Your task to perform on an android device: set the timer Image 0: 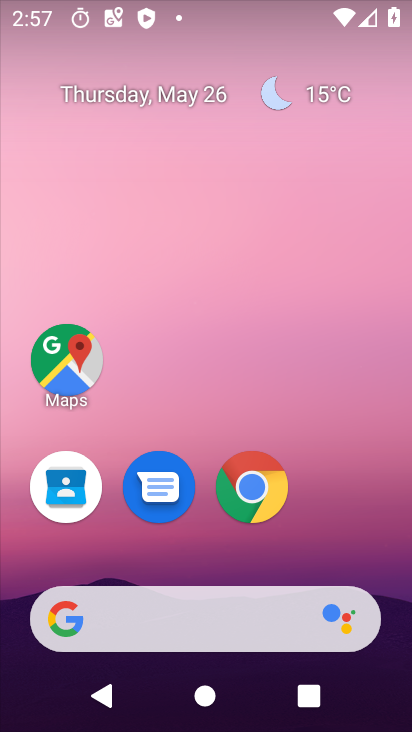
Step 0: drag from (203, 557) to (247, 228)
Your task to perform on an android device: set the timer Image 1: 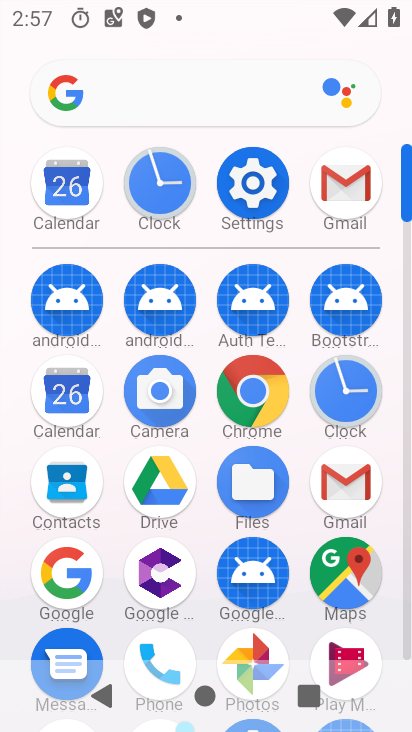
Step 1: click (140, 210)
Your task to perform on an android device: set the timer Image 2: 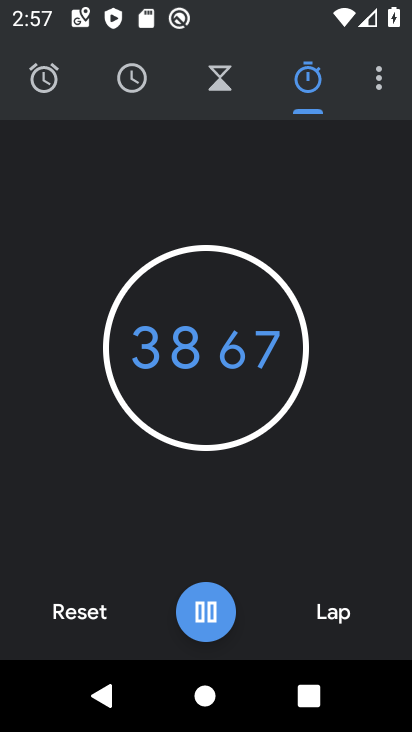
Step 2: click (215, 95)
Your task to perform on an android device: set the timer Image 3: 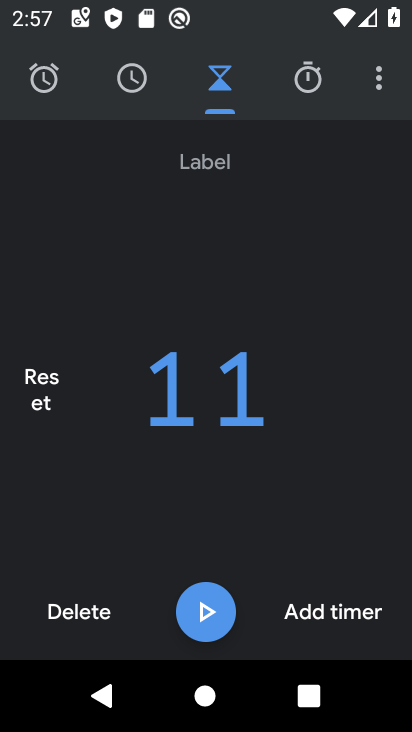
Step 3: click (212, 607)
Your task to perform on an android device: set the timer Image 4: 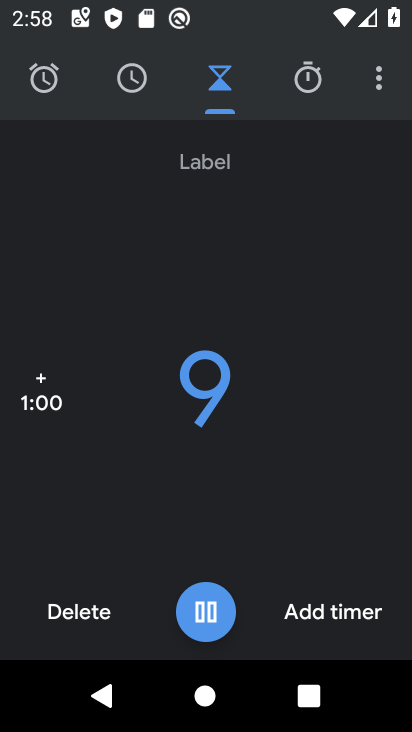
Step 4: task complete